Your task to perform on an android device: What's the weather today? Image 0: 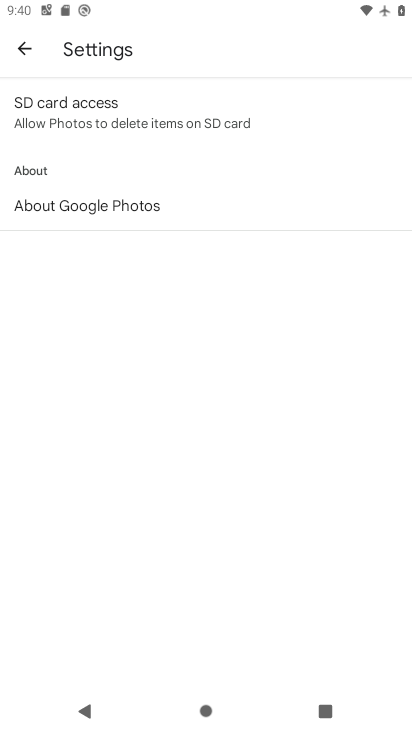
Step 0: press home button
Your task to perform on an android device: What's the weather today? Image 1: 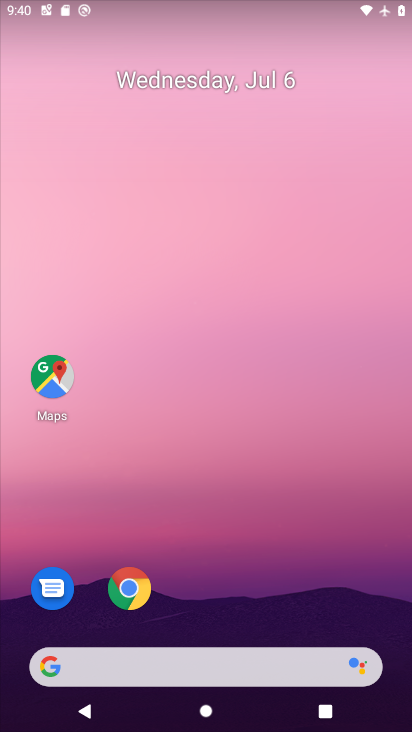
Step 1: click (185, 669)
Your task to perform on an android device: What's the weather today? Image 2: 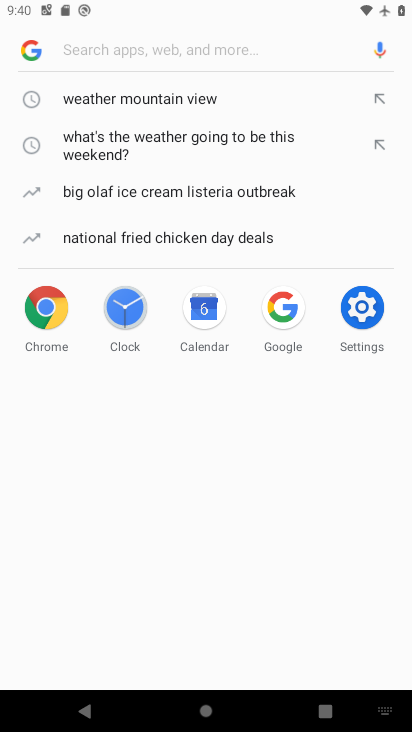
Step 2: click (207, 96)
Your task to perform on an android device: What's the weather today? Image 3: 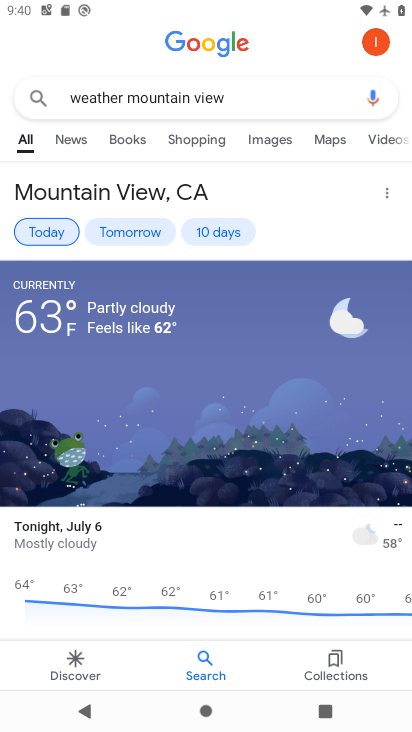
Step 3: task complete